Your task to perform on an android device: change the clock style Image 0: 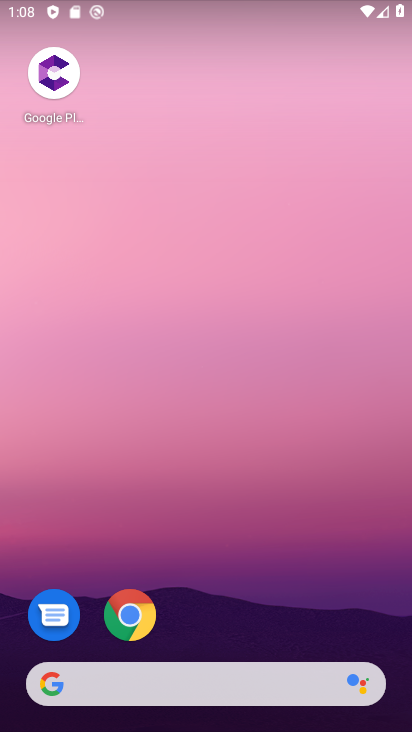
Step 0: click (230, 131)
Your task to perform on an android device: change the clock style Image 1: 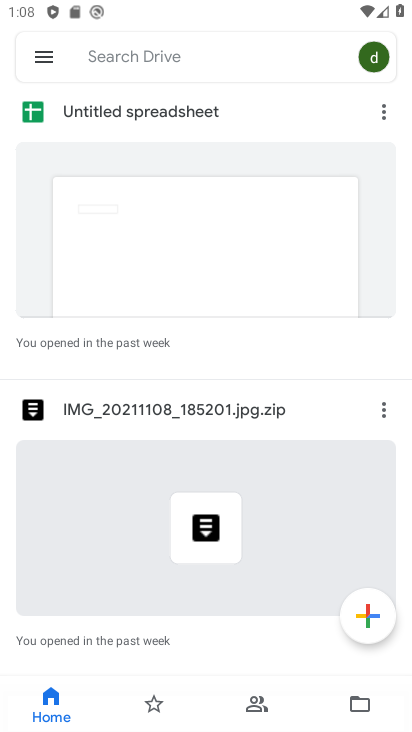
Step 1: press home button
Your task to perform on an android device: change the clock style Image 2: 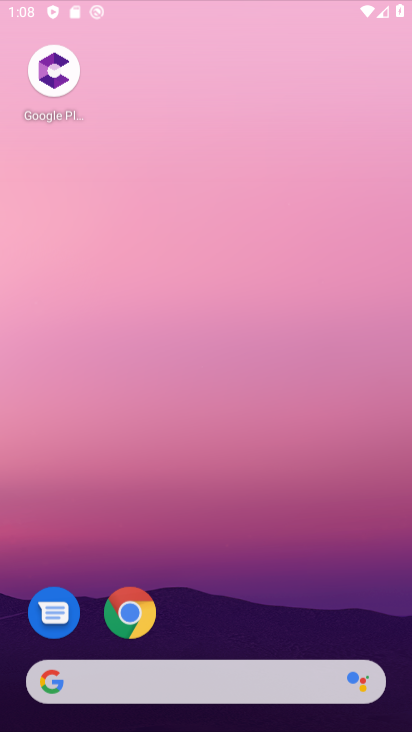
Step 2: drag from (170, 568) to (173, 33)
Your task to perform on an android device: change the clock style Image 3: 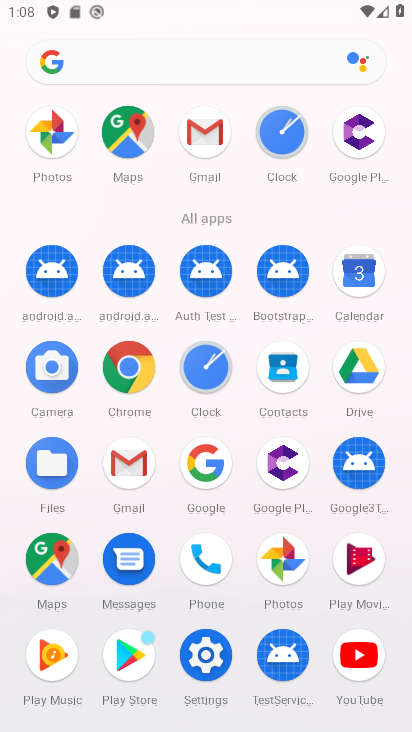
Step 3: click (190, 385)
Your task to perform on an android device: change the clock style Image 4: 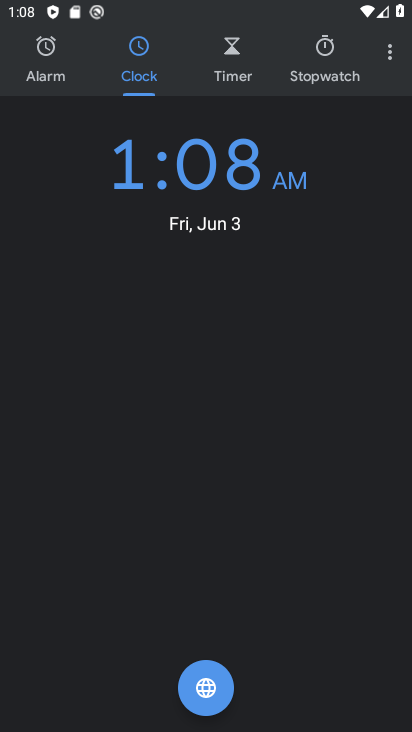
Step 4: click (374, 56)
Your task to perform on an android device: change the clock style Image 5: 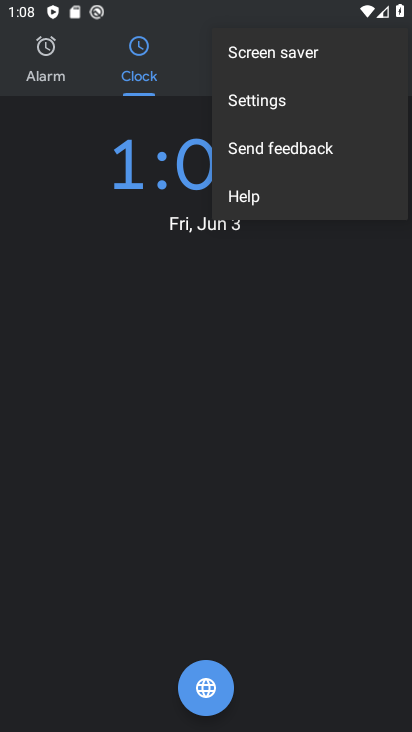
Step 5: click (253, 103)
Your task to perform on an android device: change the clock style Image 6: 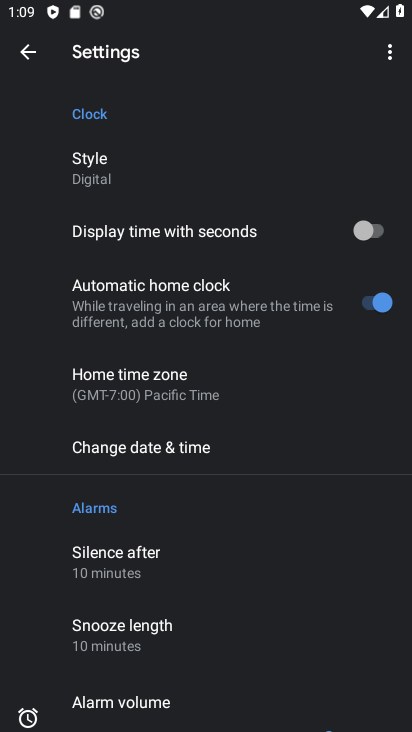
Step 6: click (113, 179)
Your task to perform on an android device: change the clock style Image 7: 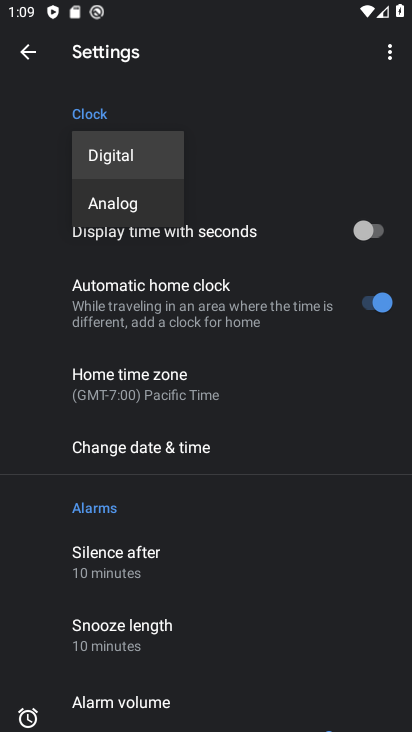
Step 7: click (127, 184)
Your task to perform on an android device: change the clock style Image 8: 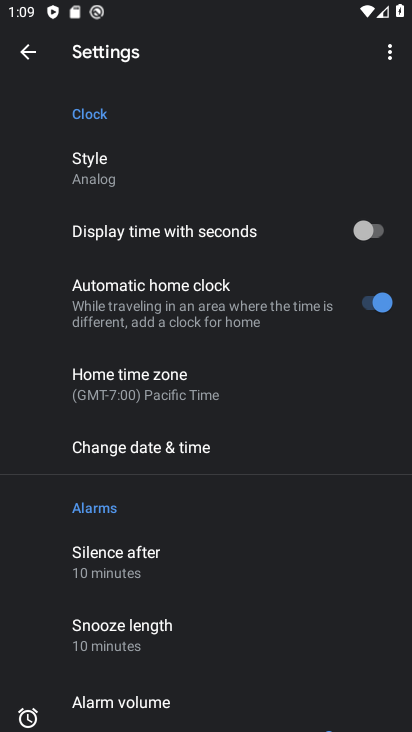
Step 8: click (298, 204)
Your task to perform on an android device: change the clock style Image 9: 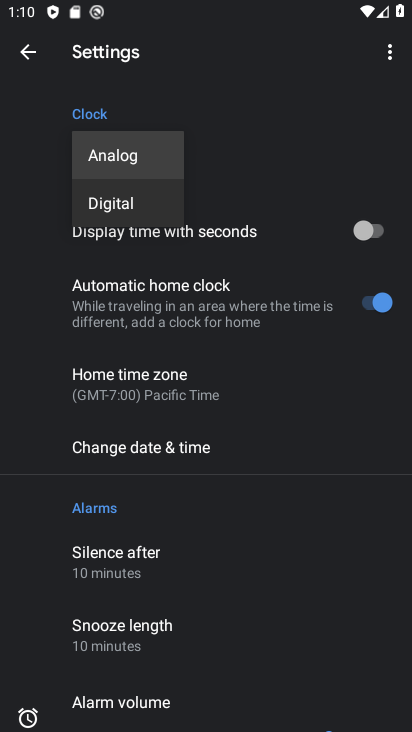
Step 9: task complete